Your task to perform on an android device: Open Youtube and go to "Your channel" Image 0: 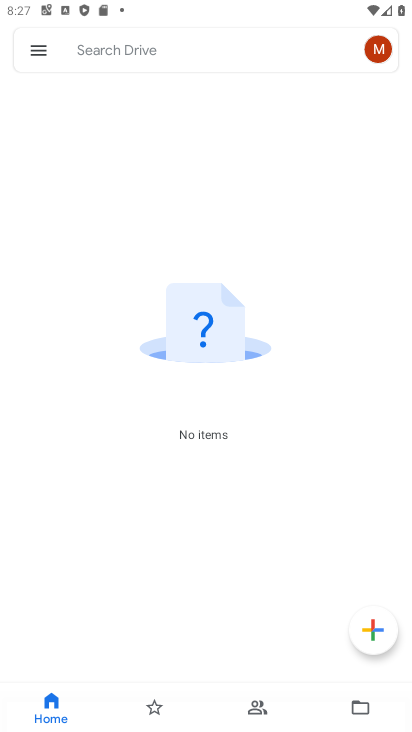
Step 0: press home button
Your task to perform on an android device: Open Youtube and go to "Your channel" Image 1: 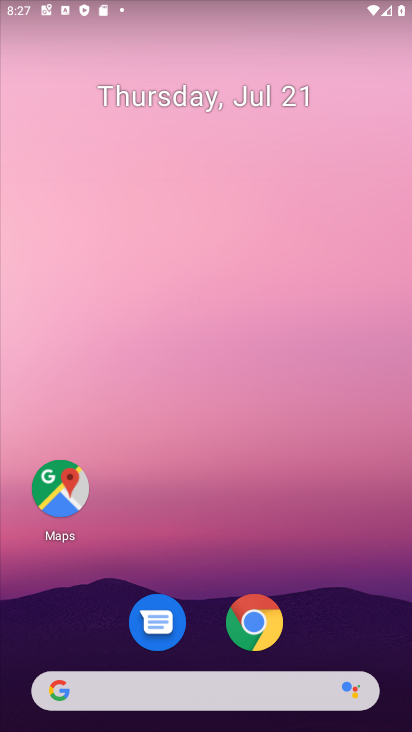
Step 1: drag from (265, 723) to (169, 193)
Your task to perform on an android device: Open Youtube and go to "Your channel" Image 2: 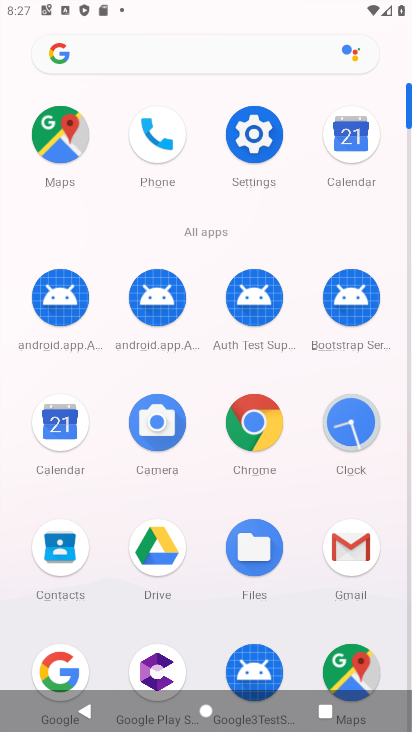
Step 2: drag from (210, 570) to (155, 121)
Your task to perform on an android device: Open Youtube and go to "Your channel" Image 3: 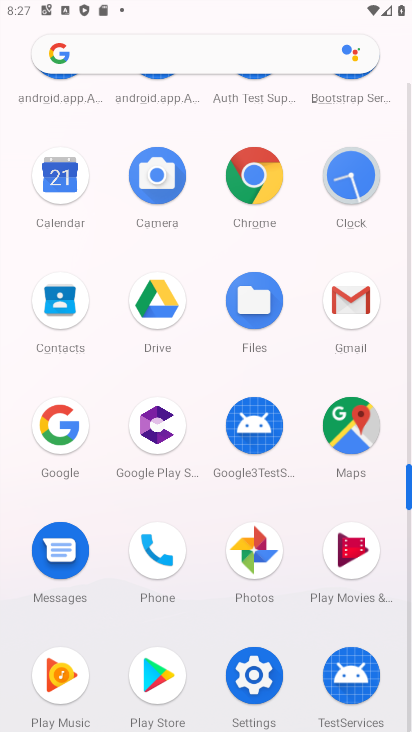
Step 3: drag from (274, 517) to (312, 22)
Your task to perform on an android device: Open Youtube and go to "Your channel" Image 4: 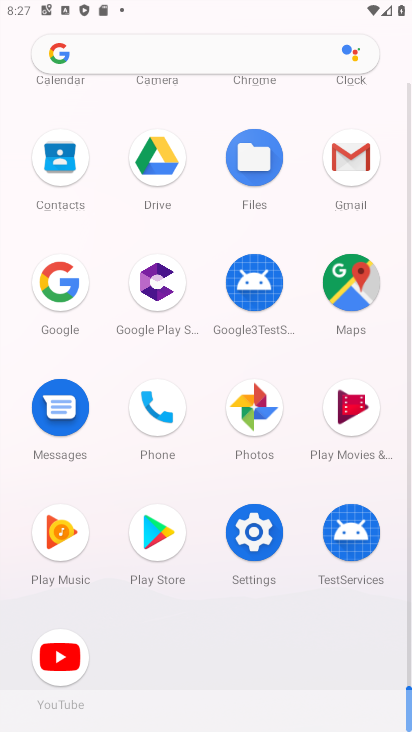
Step 4: click (73, 660)
Your task to perform on an android device: Open Youtube and go to "Your channel" Image 5: 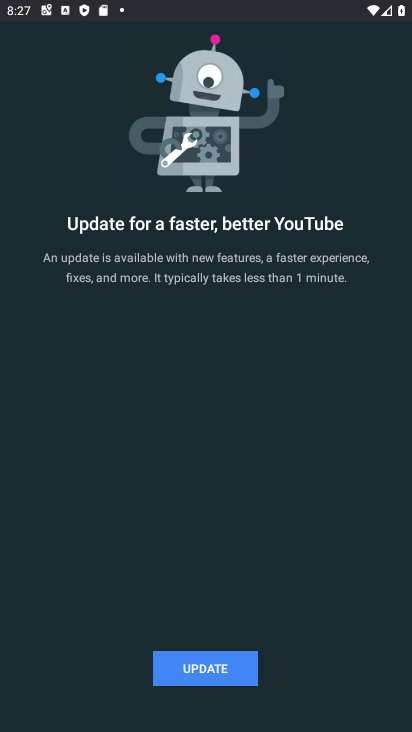
Step 5: click (213, 668)
Your task to perform on an android device: Open Youtube and go to "Your channel" Image 6: 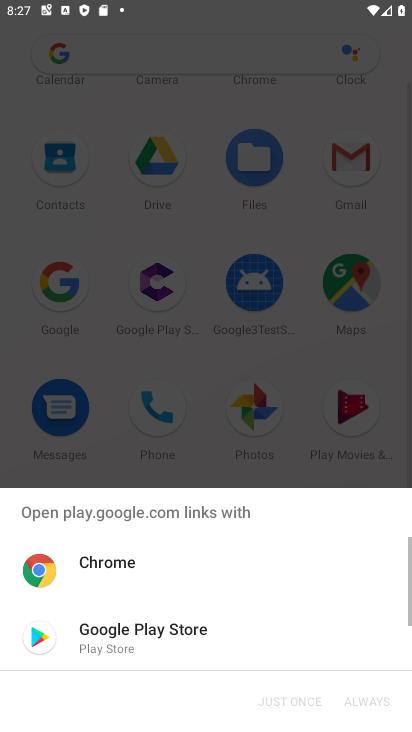
Step 6: click (187, 629)
Your task to perform on an android device: Open Youtube and go to "Your channel" Image 7: 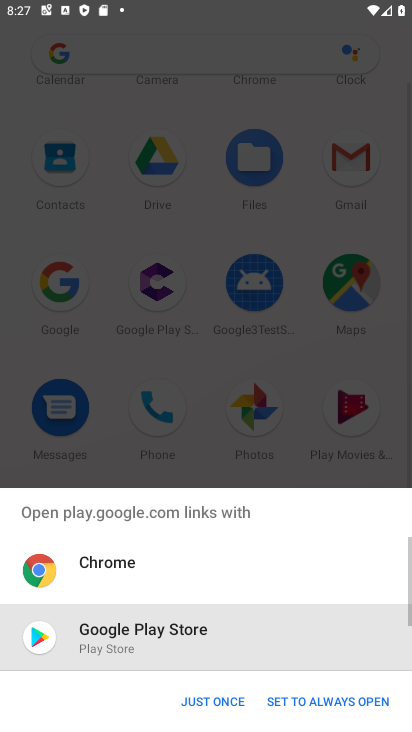
Step 7: click (201, 707)
Your task to perform on an android device: Open Youtube and go to "Your channel" Image 8: 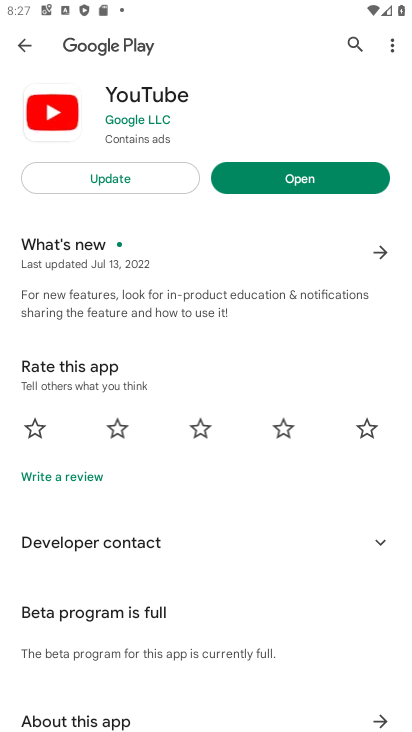
Step 8: click (140, 183)
Your task to perform on an android device: Open Youtube and go to "Your channel" Image 9: 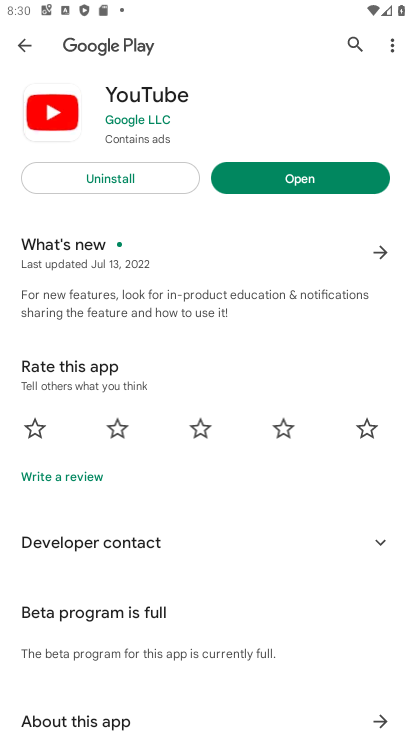
Step 9: click (351, 179)
Your task to perform on an android device: Open Youtube and go to "Your channel" Image 10: 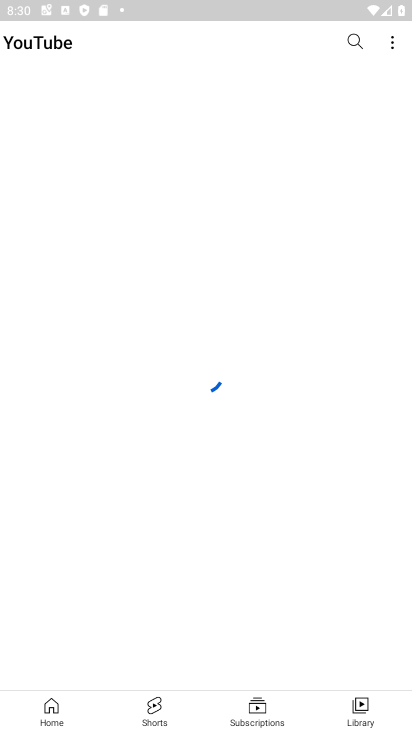
Step 10: click (401, 44)
Your task to perform on an android device: Open Youtube and go to "Your channel" Image 11: 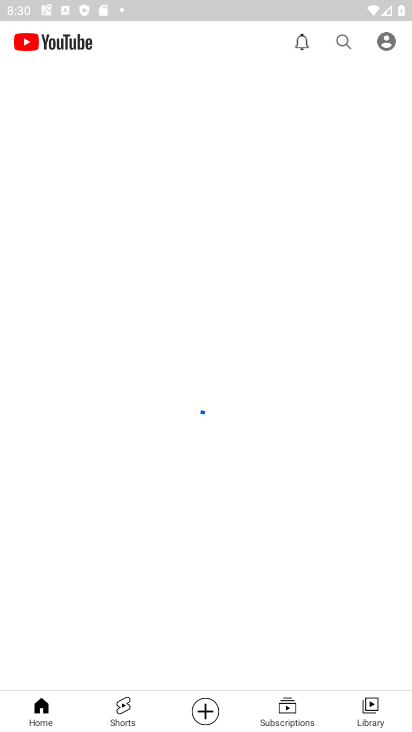
Step 11: click (391, 43)
Your task to perform on an android device: Open Youtube and go to "Your channel" Image 12: 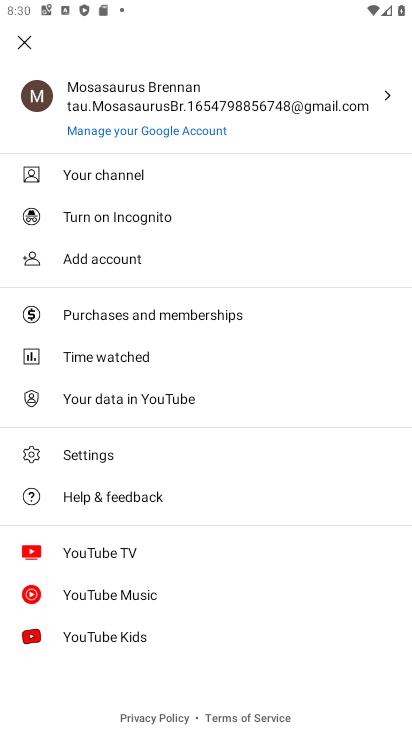
Step 12: click (104, 174)
Your task to perform on an android device: Open Youtube and go to "Your channel" Image 13: 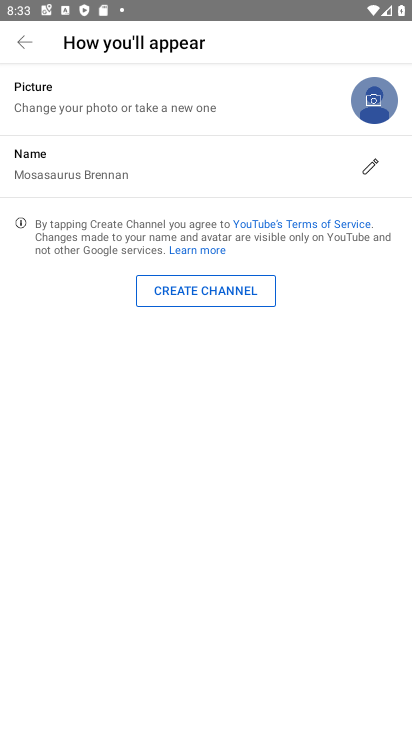
Step 13: task complete